Your task to perform on an android device: read, delete, or share a saved page in the chrome app Image 0: 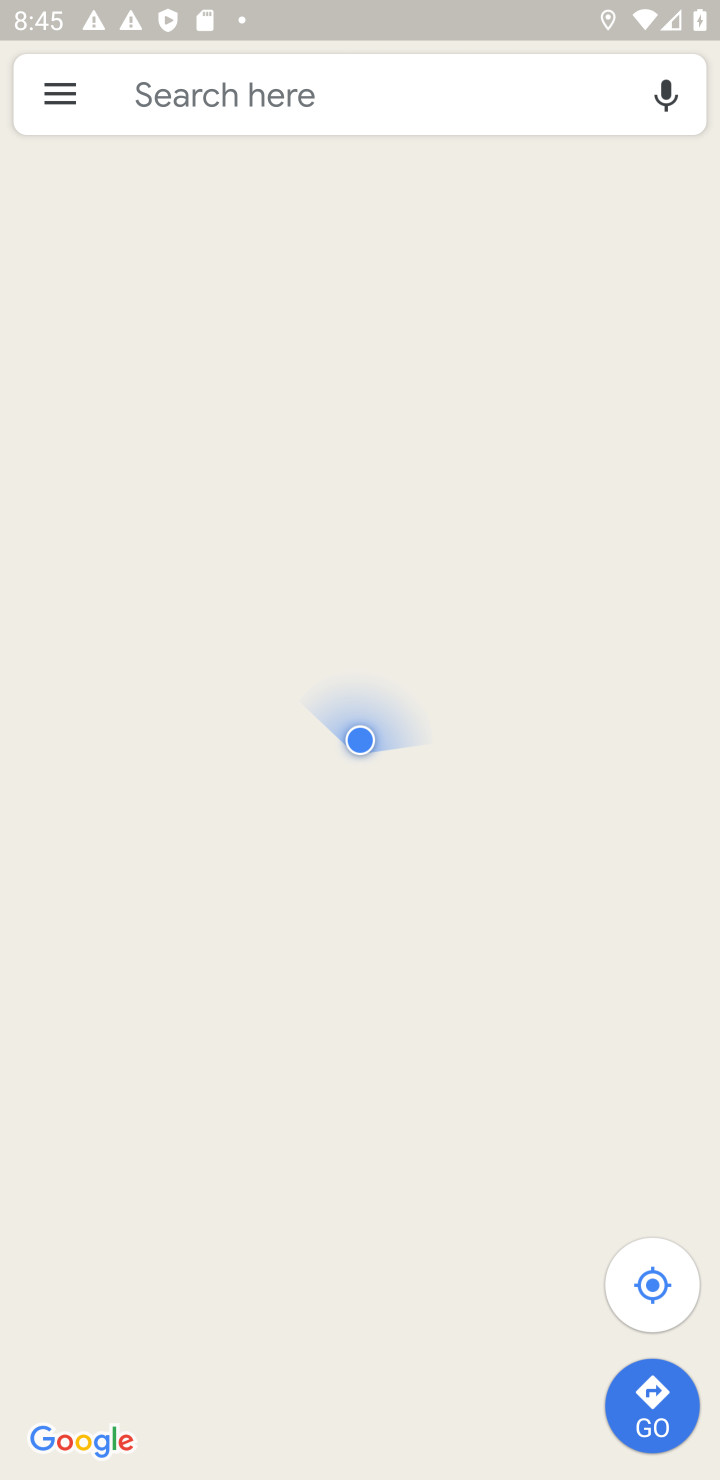
Step 0: press home button
Your task to perform on an android device: read, delete, or share a saved page in the chrome app Image 1: 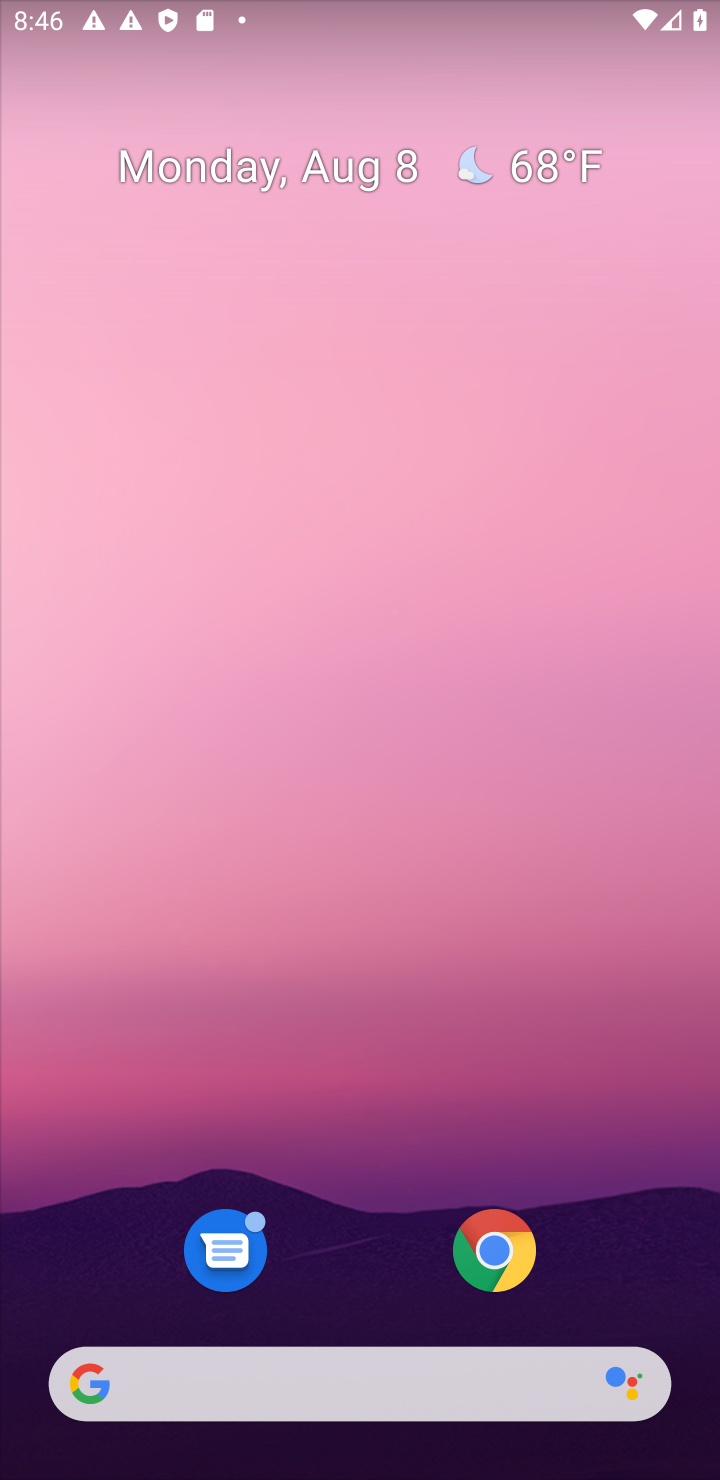
Step 1: click (499, 1237)
Your task to perform on an android device: read, delete, or share a saved page in the chrome app Image 2: 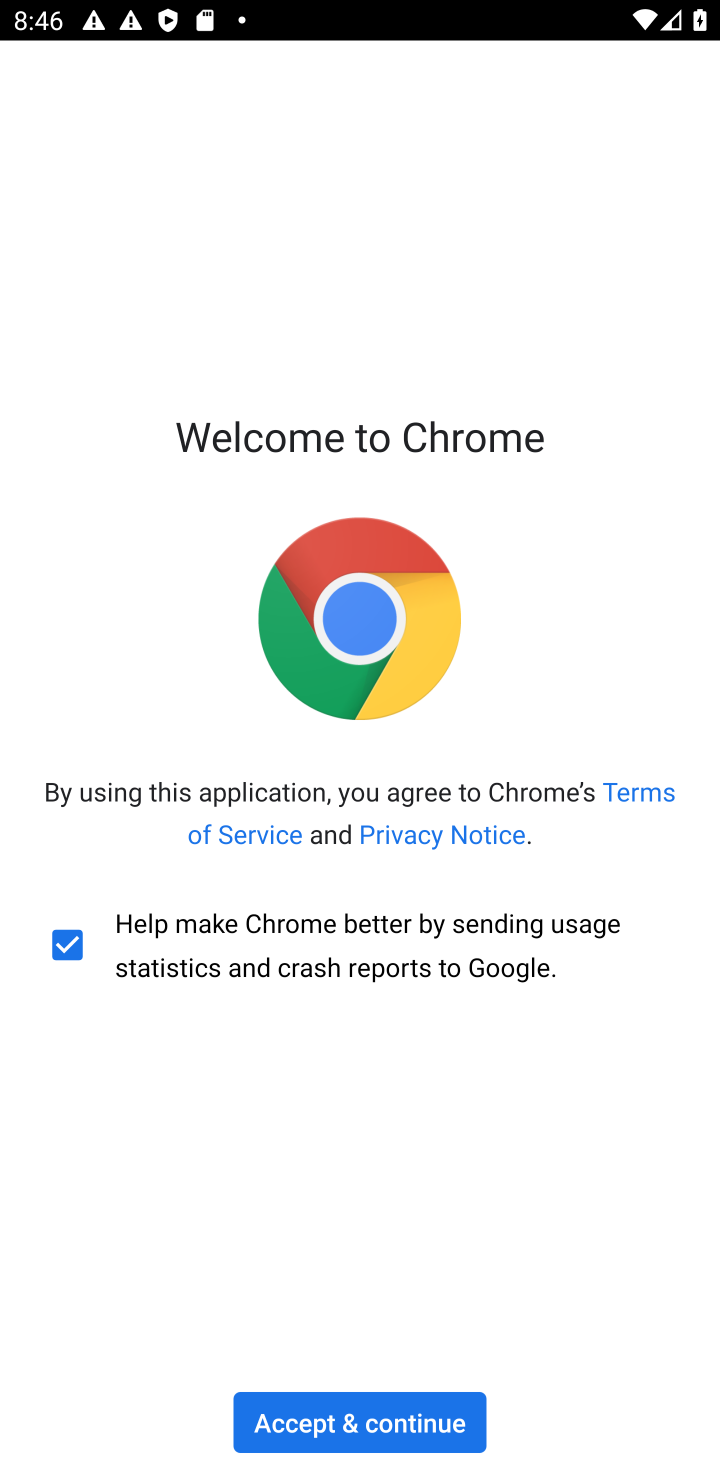
Step 2: click (426, 1417)
Your task to perform on an android device: read, delete, or share a saved page in the chrome app Image 3: 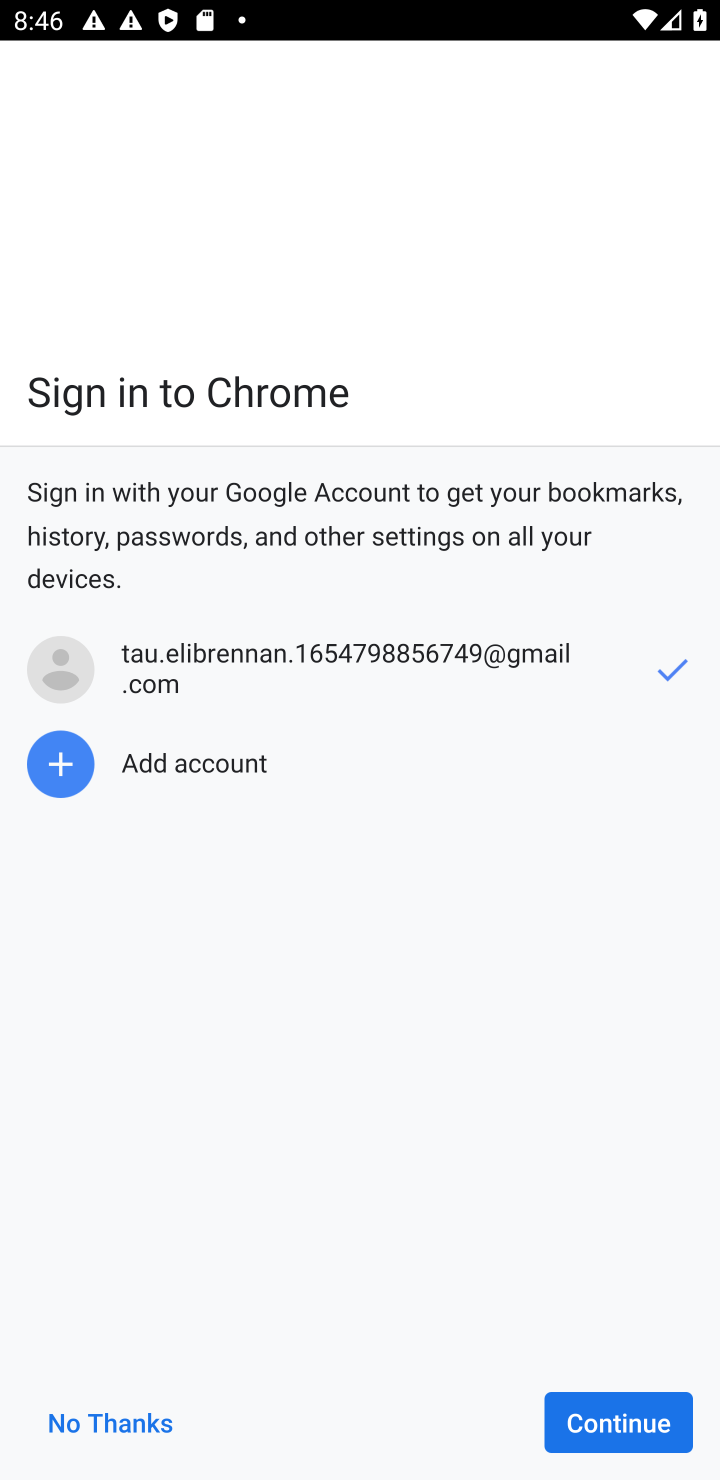
Step 3: click (600, 1422)
Your task to perform on an android device: read, delete, or share a saved page in the chrome app Image 4: 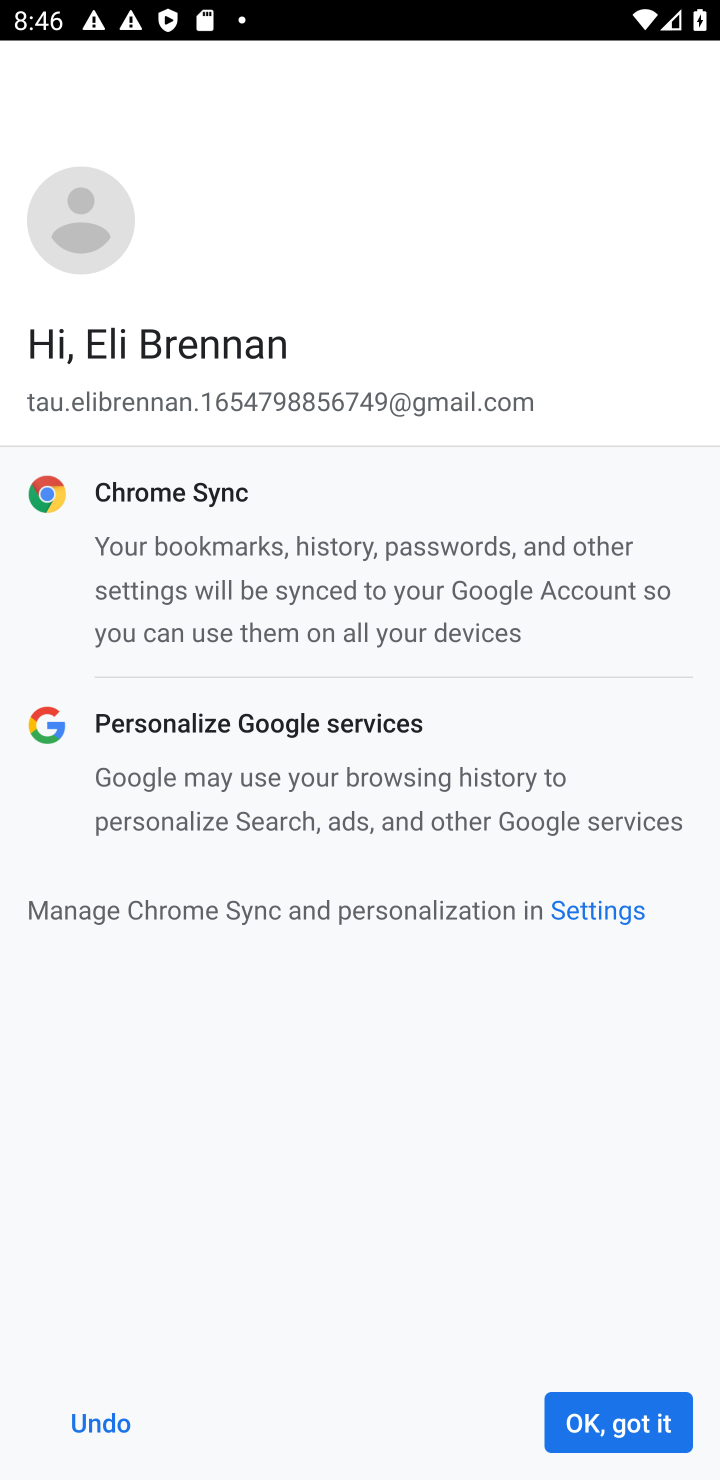
Step 4: click (598, 1416)
Your task to perform on an android device: read, delete, or share a saved page in the chrome app Image 5: 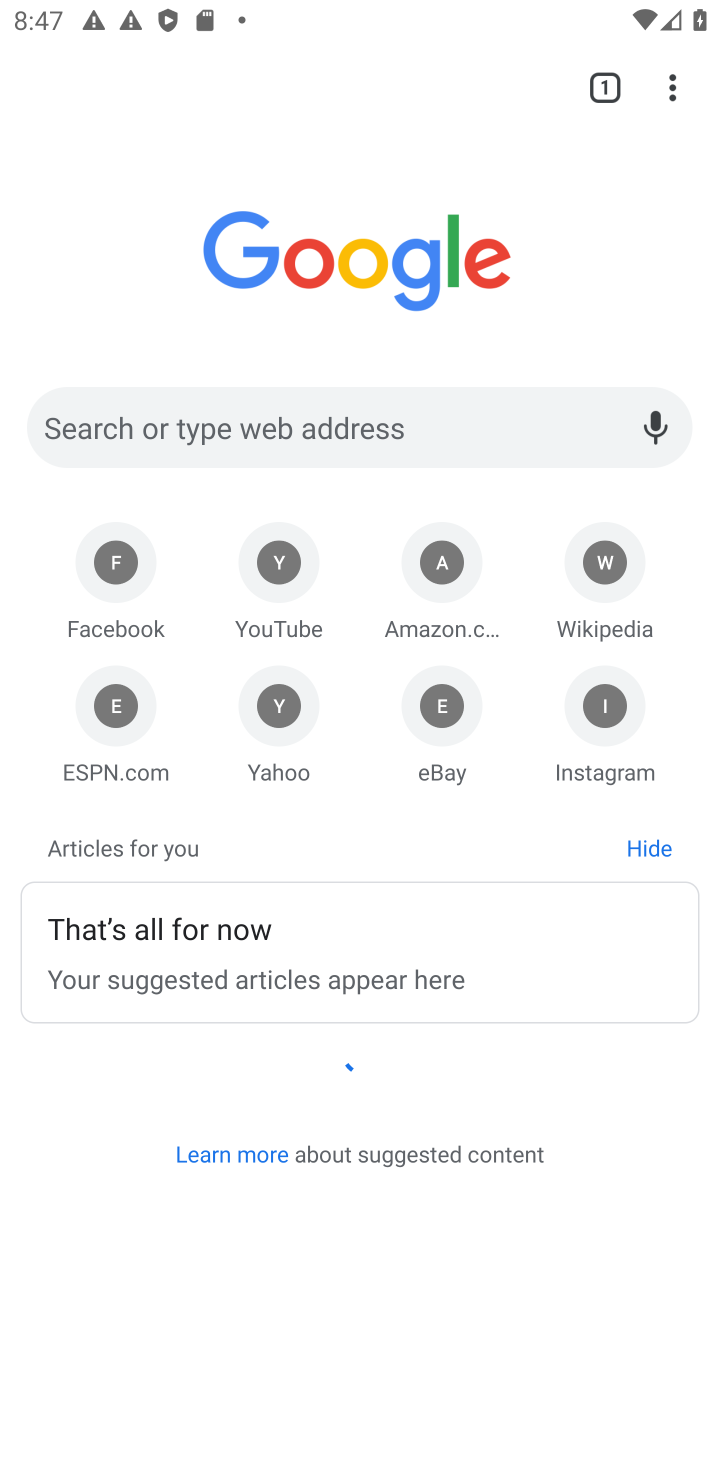
Step 5: click (673, 64)
Your task to perform on an android device: read, delete, or share a saved page in the chrome app Image 6: 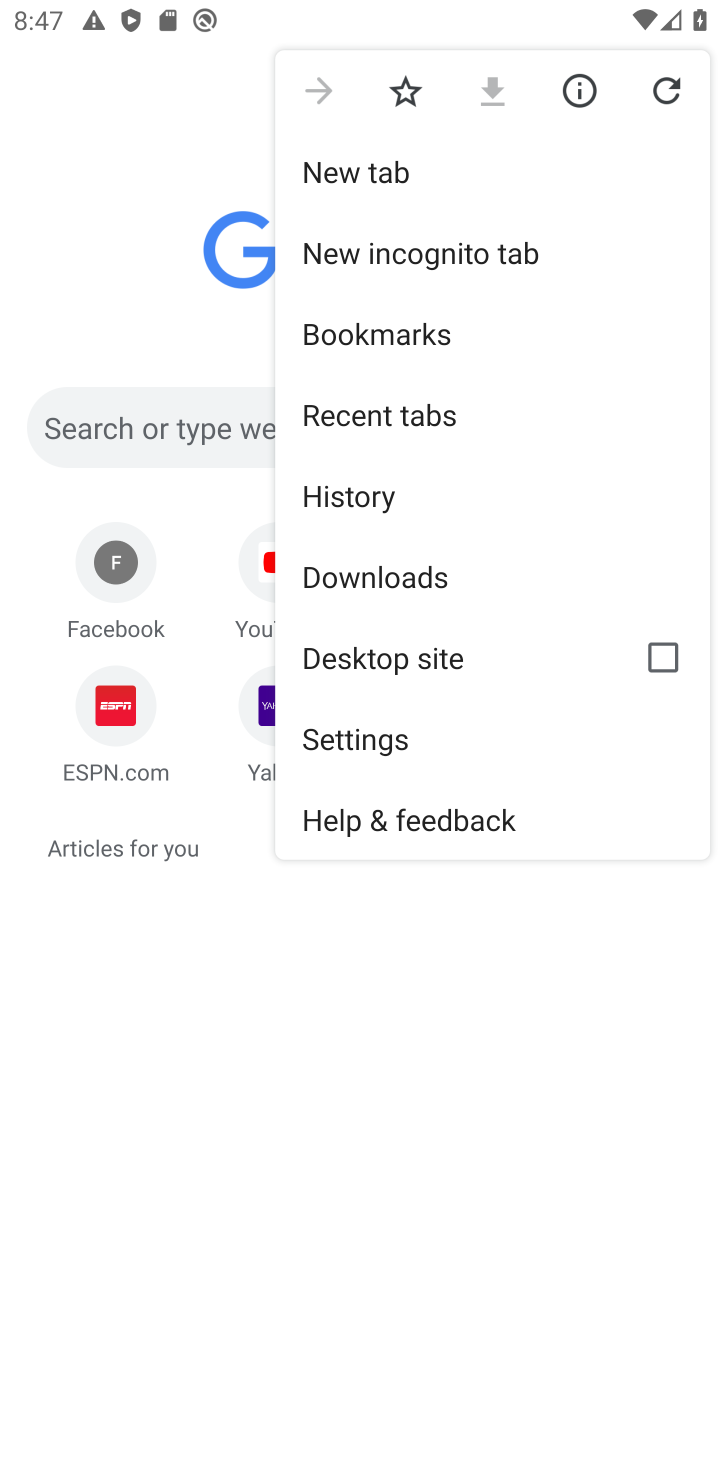
Step 6: click (389, 578)
Your task to perform on an android device: read, delete, or share a saved page in the chrome app Image 7: 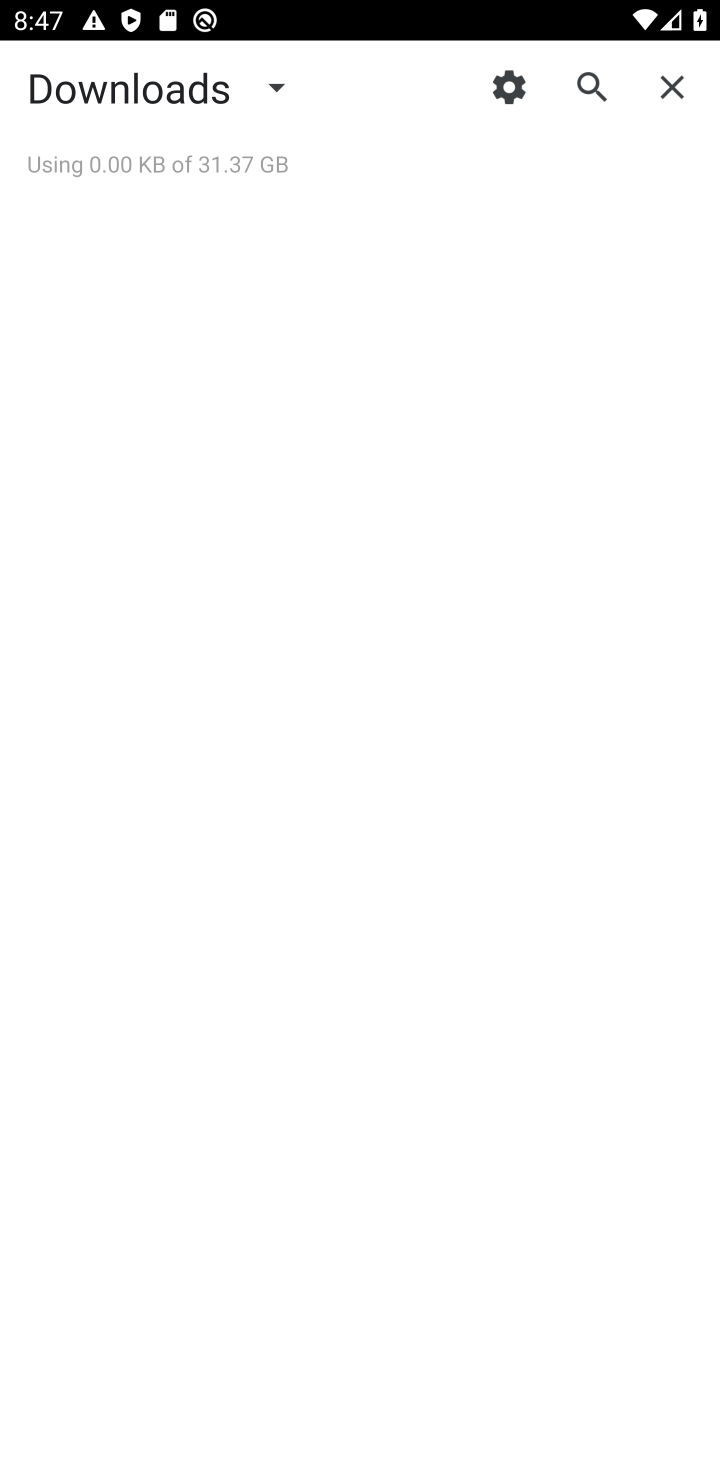
Step 7: click (389, 584)
Your task to perform on an android device: read, delete, or share a saved page in the chrome app Image 8: 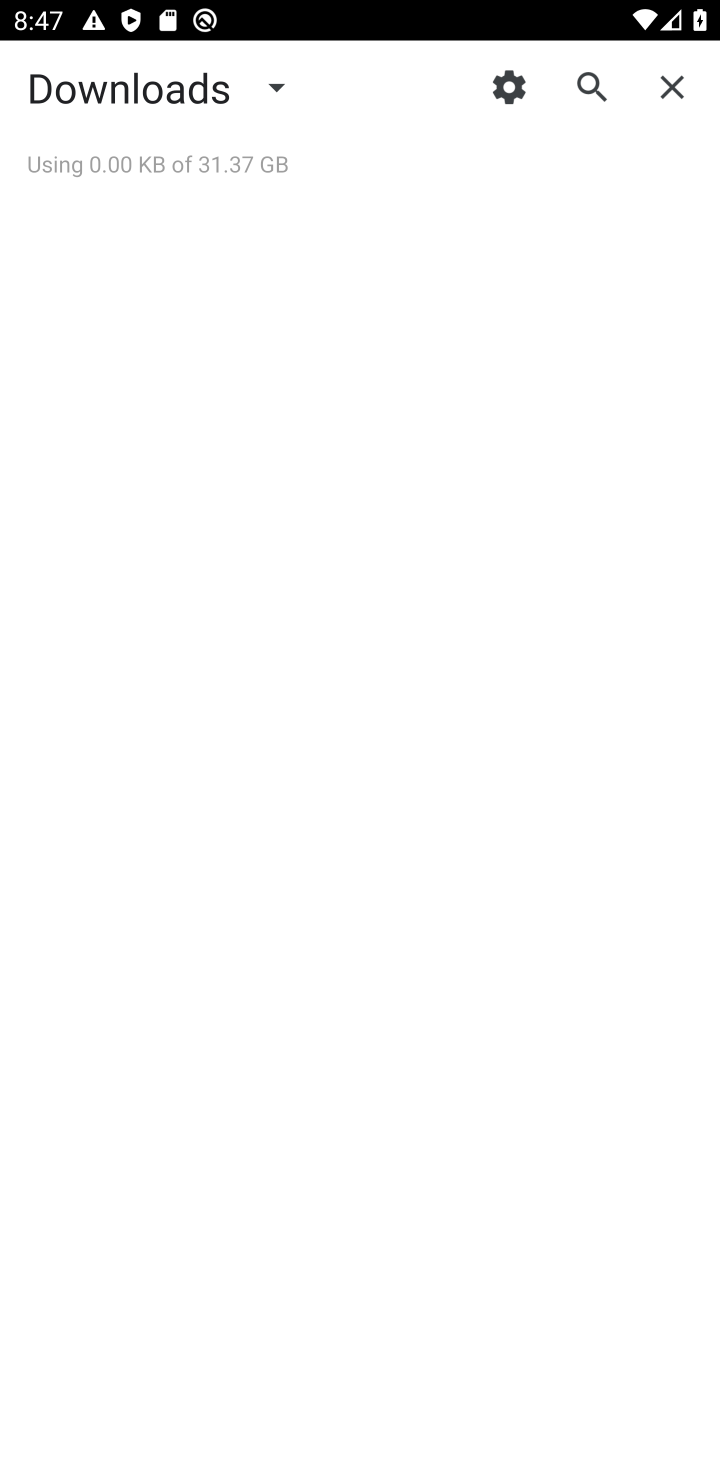
Step 8: task complete